Your task to perform on an android device: Open Youtube and go to "Your channel" Image 0: 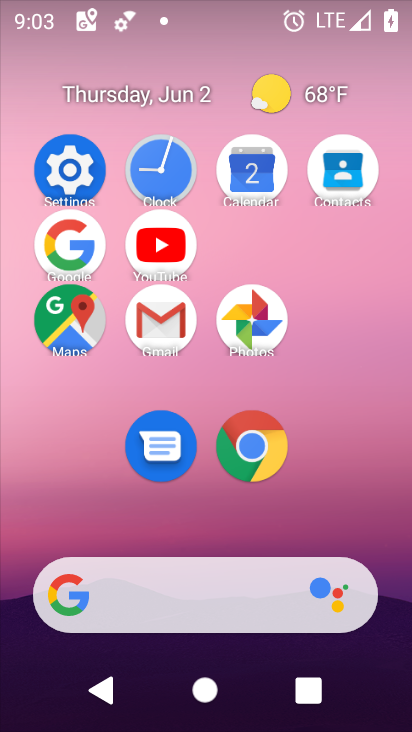
Step 0: click (177, 244)
Your task to perform on an android device: Open Youtube and go to "Your channel" Image 1: 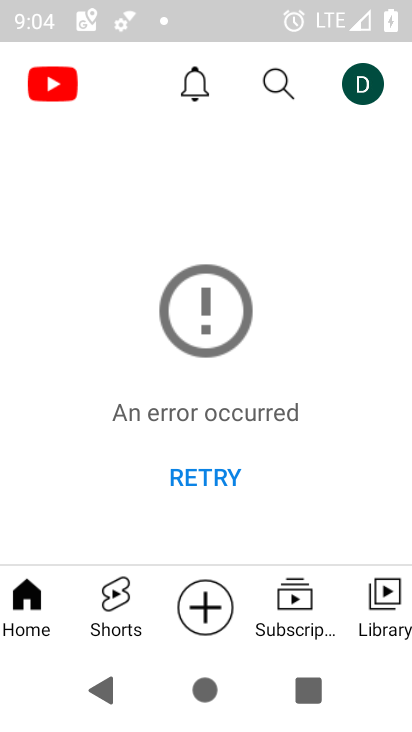
Step 1: press back button
Your task to perform on an android device: Open Youtube and go to "Your channel" Image 2: 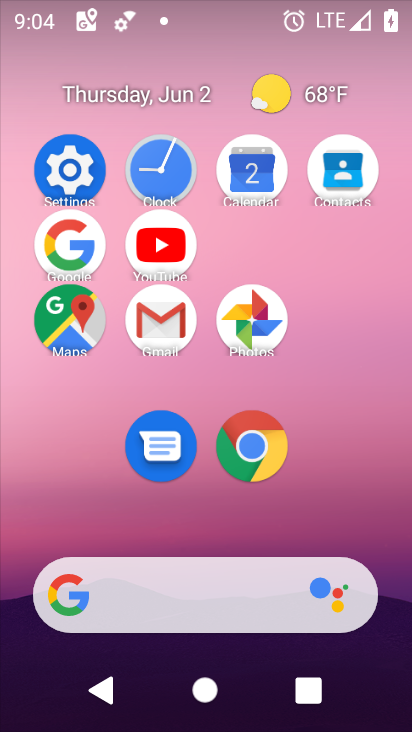
Step 2: click (166, 242)
Your task to perform on an android device: Open Youtube and go to "Your channel" Image 3: 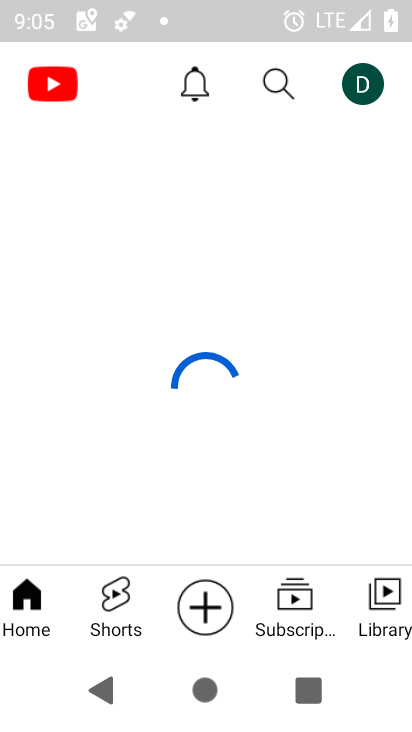
Step 3: click (365, 79)
Your task to perform on an android device: Open Youtube and go to "Your channel" Image 4: 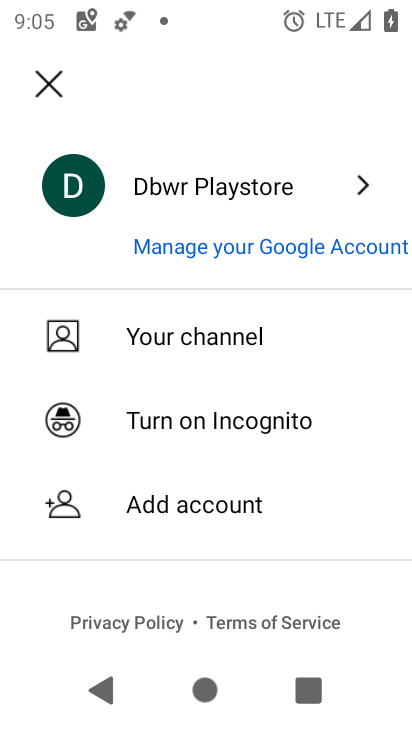
Step 4: click (235, 329)
Your task to perform on an android device: Open Youtube and go to "Your channel" Image 5: 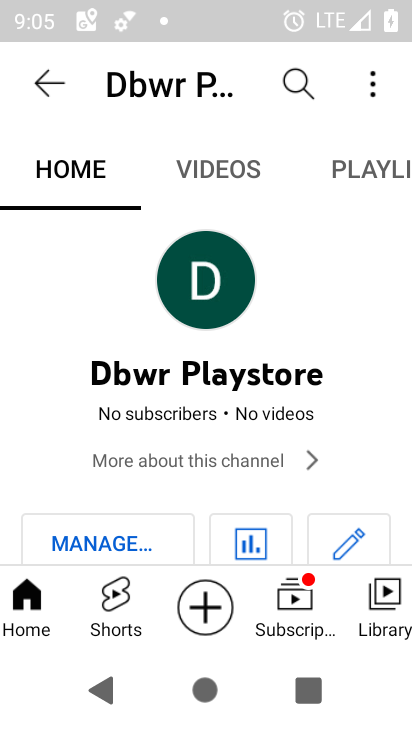
Step 5: task complete